Your task to perform on an android device: Open maps Image 0: 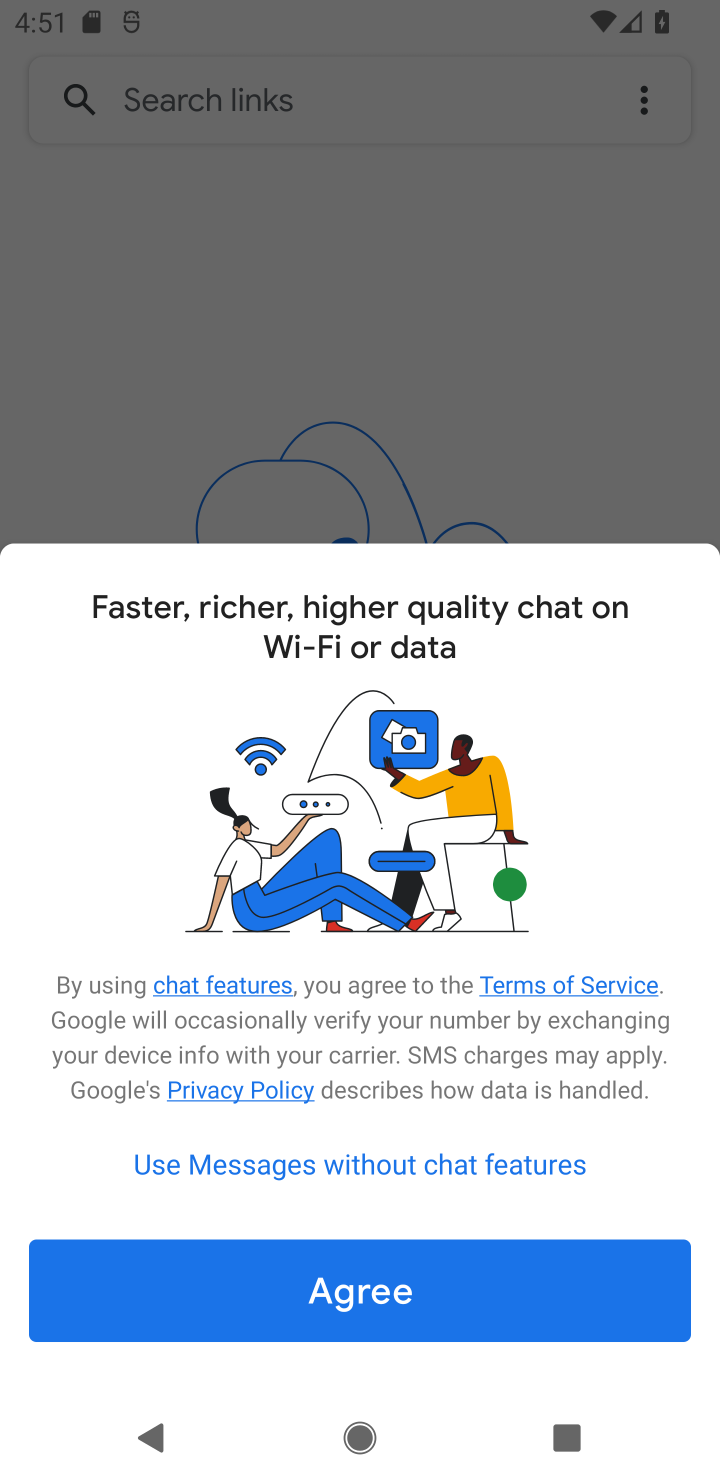
Step 0: press home button
Your task to perform on an android device: Open maps Image 1: 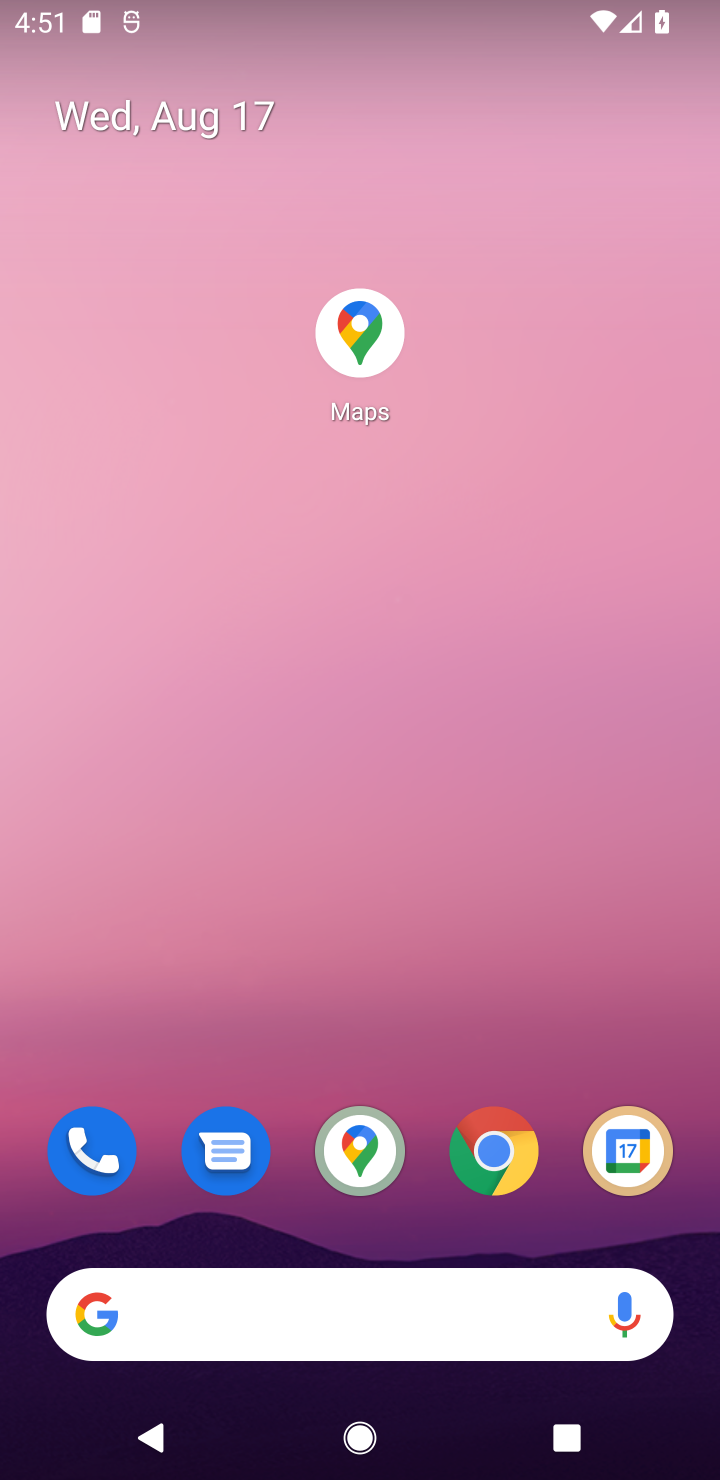
Step 1: drag from (345, 1240) to (457, 181)
Your task to perform on an android device: Open maps Image 2: 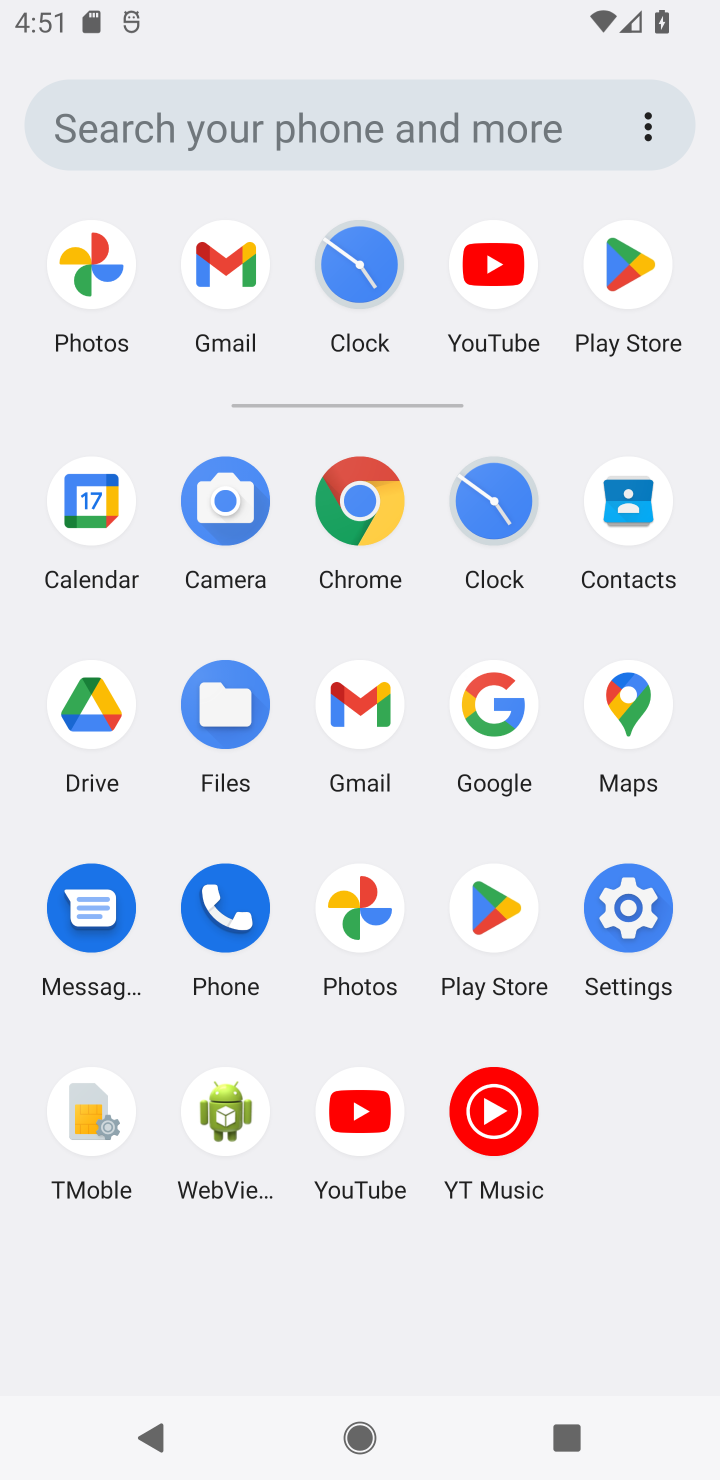
Step 2: click (638, 687)
Your task to perform on an android device: Open maps Image 3: 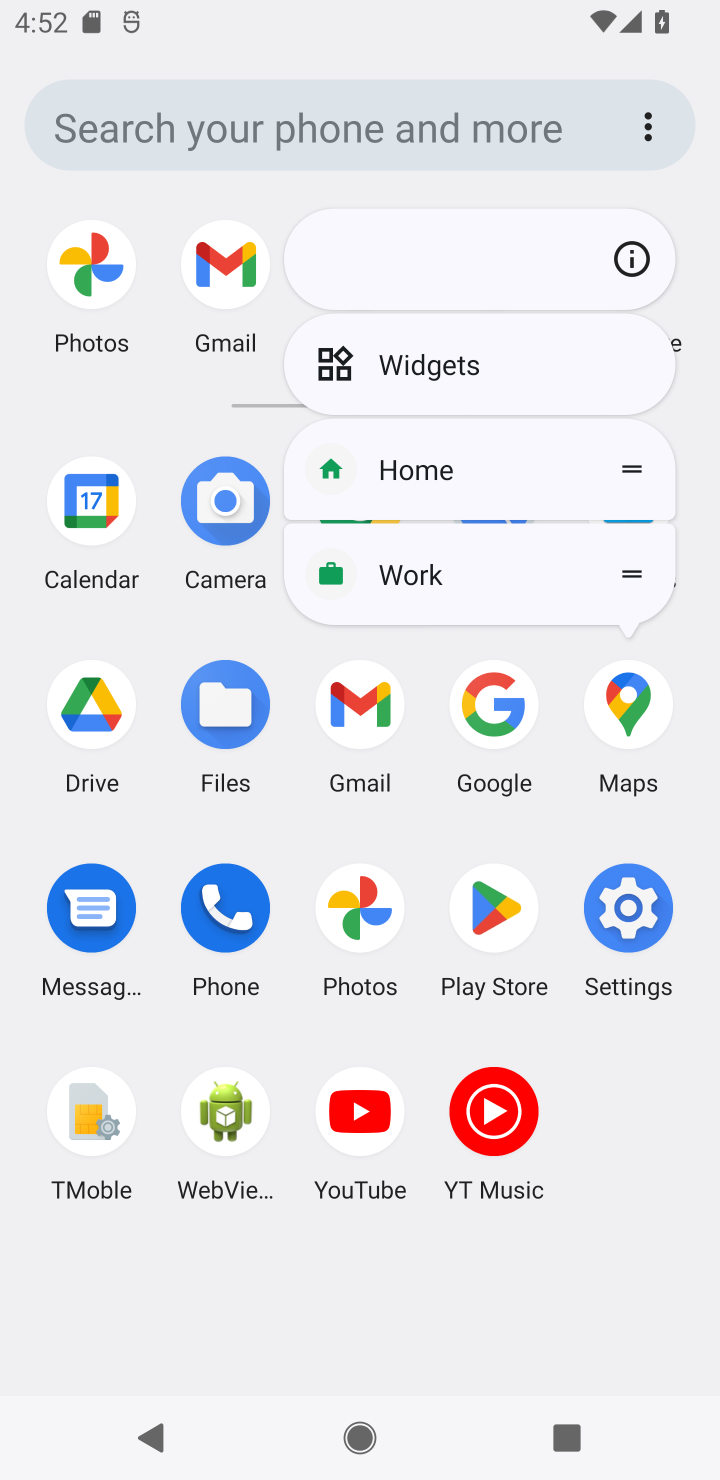
Step 3: click (638, 687)
Your task to perform on an android device: Open maps Image 4: 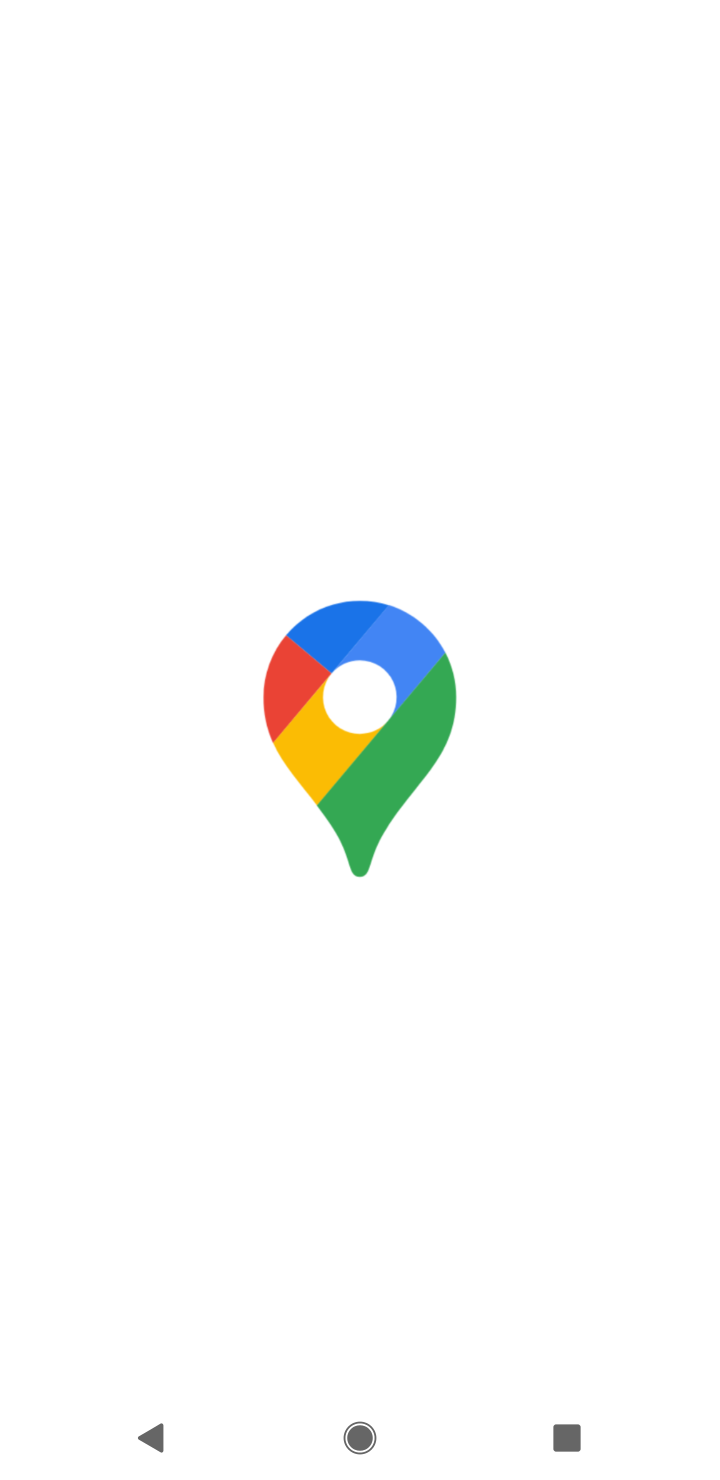
Step 4: task complete